Your task to perform on an android device: turn off location Image 0: 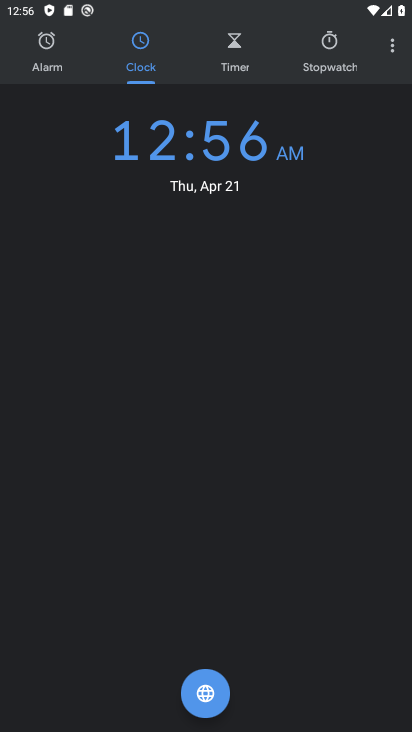
Step 0: drag from (371, 6) to (344, 464)
Your task to perform on an android device: turn off location Image 1: 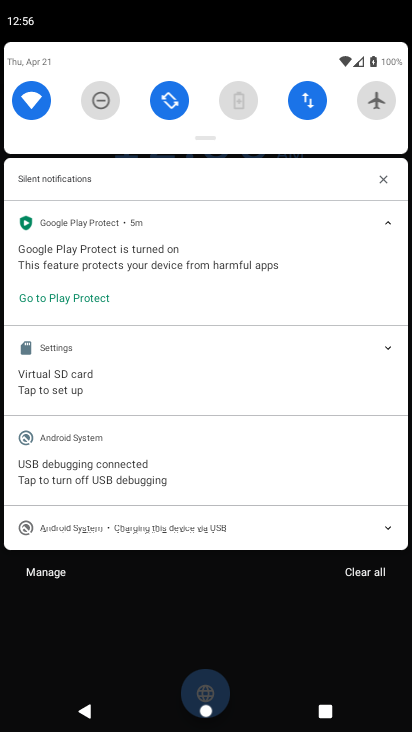
Step 1: drag from (206, 132) to (206, 631)
Your task to perform on an android device: turn off location Image 2: 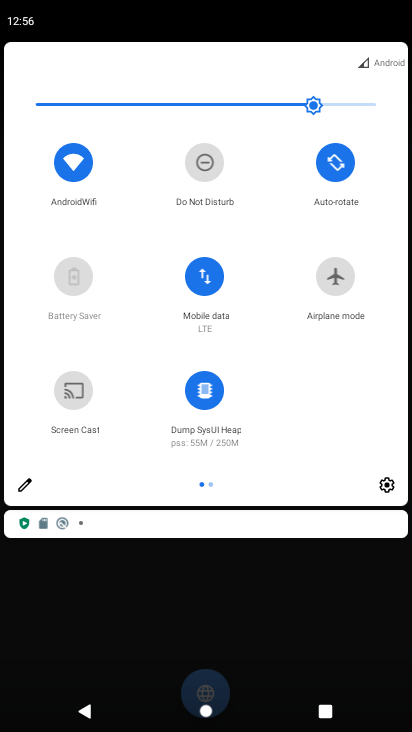
Step 2: click (27, 480)
Your task to perform on an android device: turn off location Image 3: 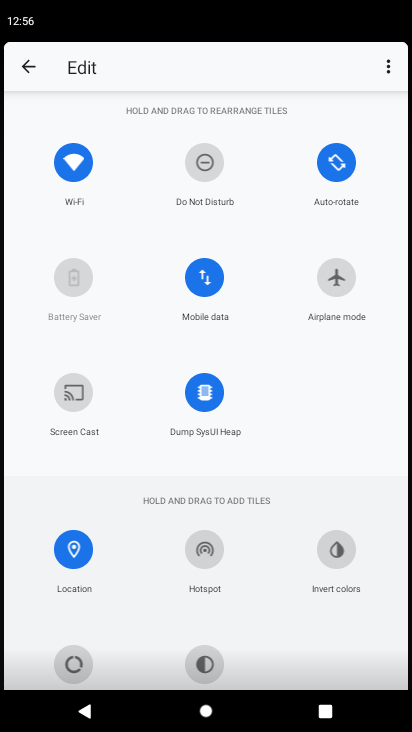
Step 3: drag from (75, 556) to (280, 410)
Your task to perform on an android device: turn off location Image 4: 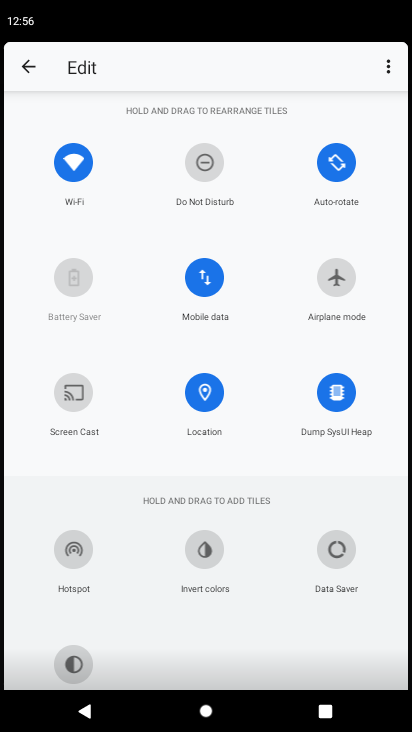
Step 4: click (25, 63)
Your task to perform on an android device: turn off location Image 5: 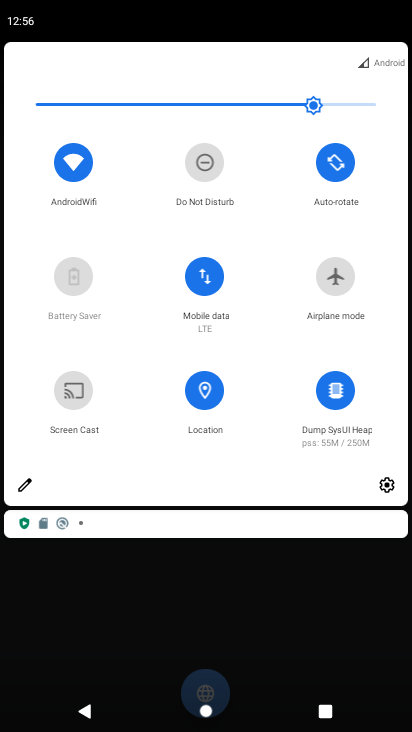
Step 5: click (213, 396)
Your task to perform on an android device: turn off location Image 6: 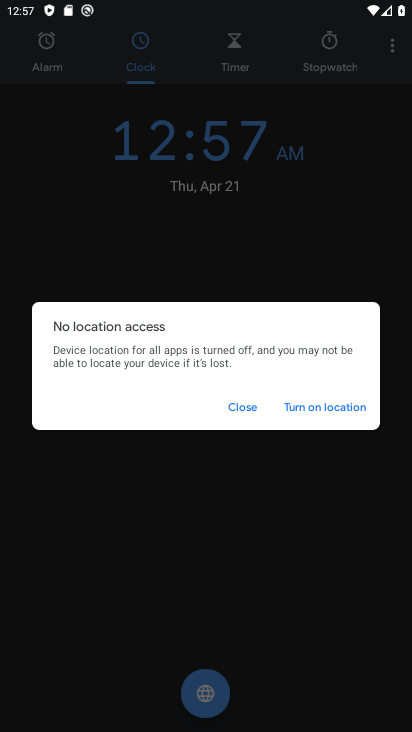
Step 6: click (247, 409)
Your task to perform on an android device: turn off location Image 7: 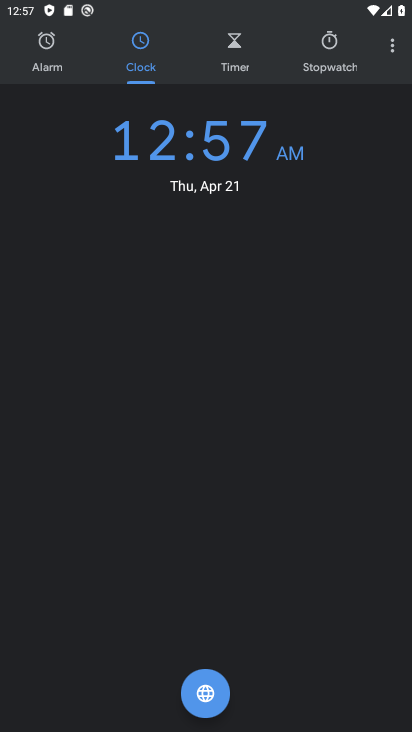
Step 7: task complete